Your task to perform on an android device: Is it going to rain today? Image 0: 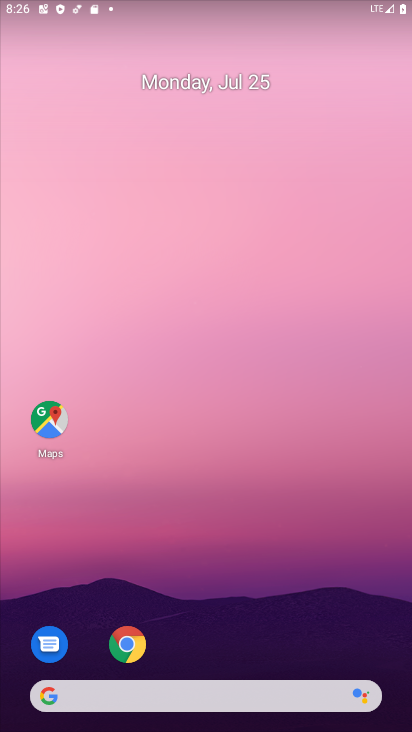
Step 0: drag from (233, 611) to (267, 218)
Your task to perform on an android device: Is it going to rain today? Image 1: 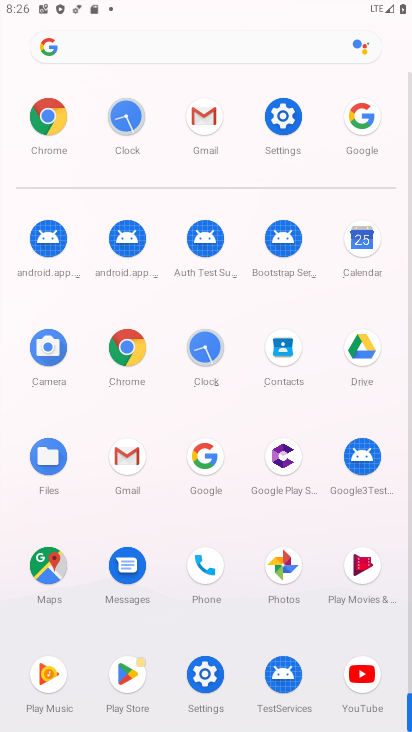
Step 1: click (145, 360)
Your task to perform on an android device: Is it going to rain today? Image 2: 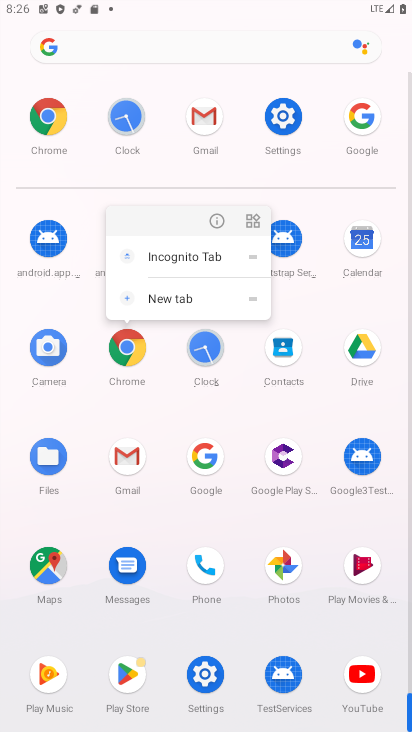
Step 2: click (129, 346)
Your task to perform on an android device: Is it going to rain today? Image 3: 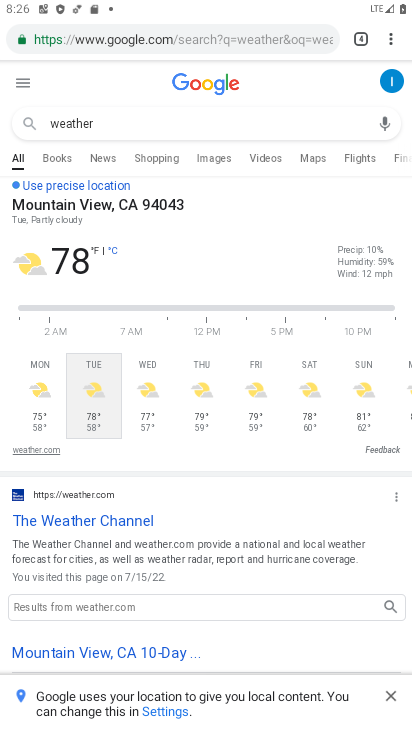
Step 3: click (47, 430)
Your task to perform on an android device: Is it going to rain today? Image 4: 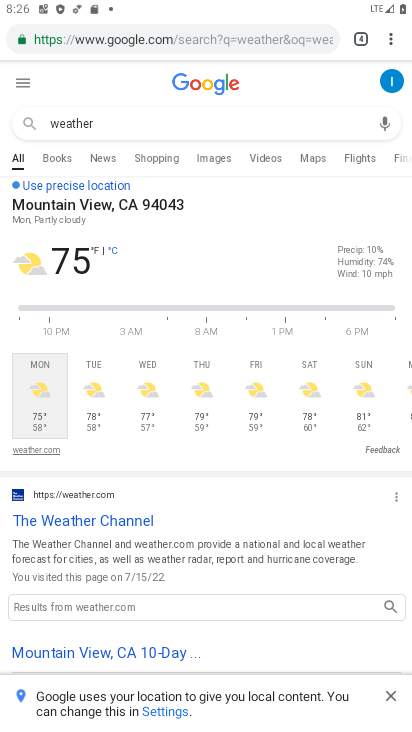
Step 4: task complete